Your task to perform on an android device: turn on bluetooth scan Image 0: 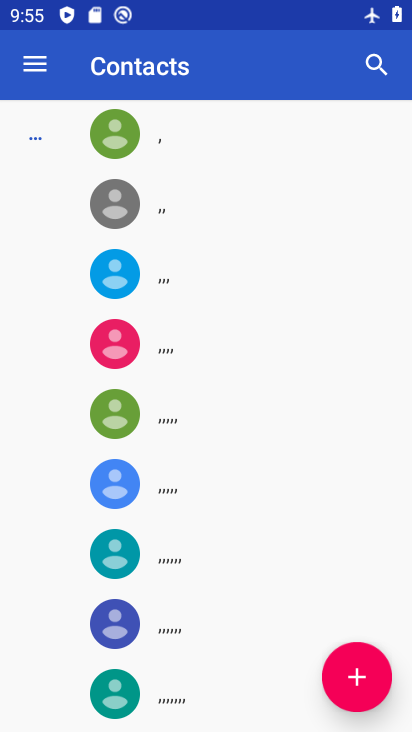
Step 0: press back button
Your task to perform on an android device: turn on bluetooth scan Image 1: 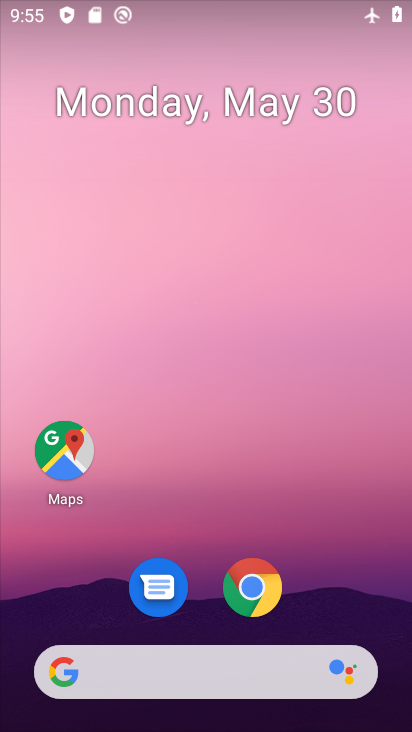
Step 1: drag from (318, 598) to (252, 98)
Your task to perform on an android device: turn on bluetooth scan Image 2: 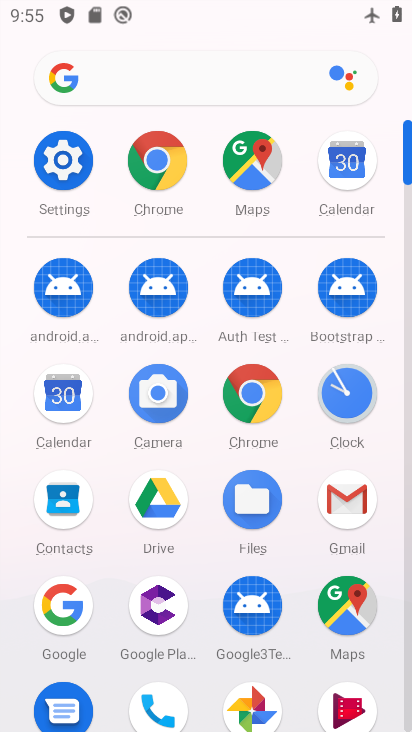
Step 2: drag from (10, 458) to (28, 199)
Your task to perform on an android device: turn on bluetooth scan Image 3: 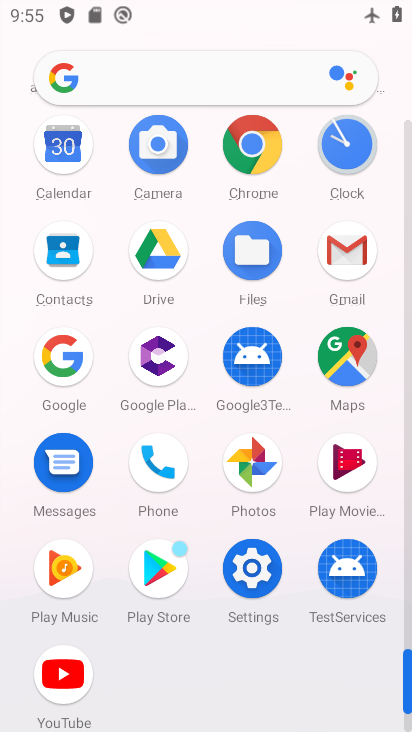
Step 3: click (251, 565)
Your task to perform on an android device: turn on bluetooth scan Image 4: 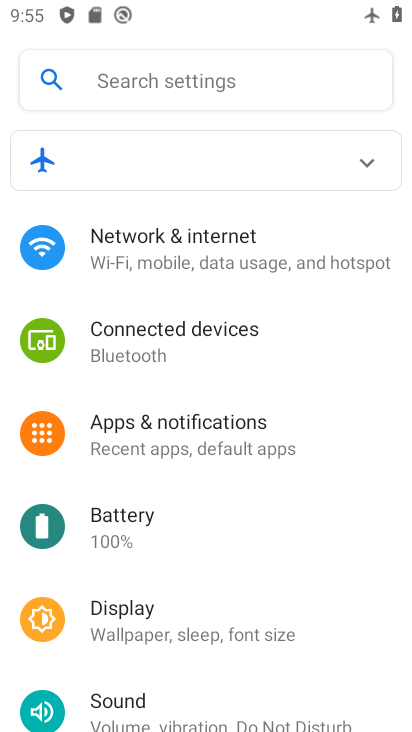
Step 4: drag from (321, 594) to (332, 146)
Your task to perform on an android device: turn on bluetooth scan Image 5: 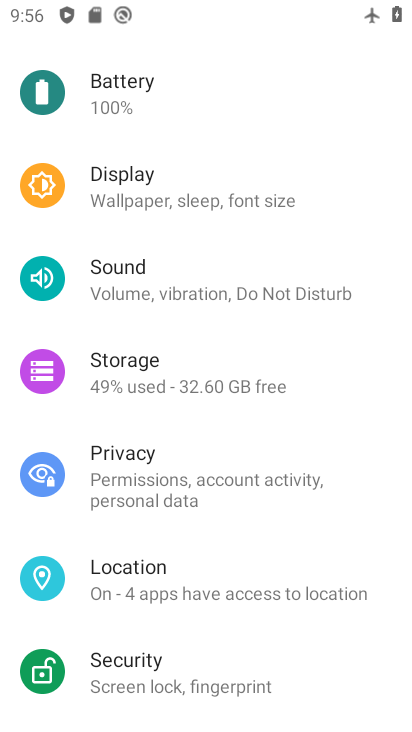
Step 5: click (207, 571)
Your task to perform on an android device: turn on bluetooth scan Image 6: 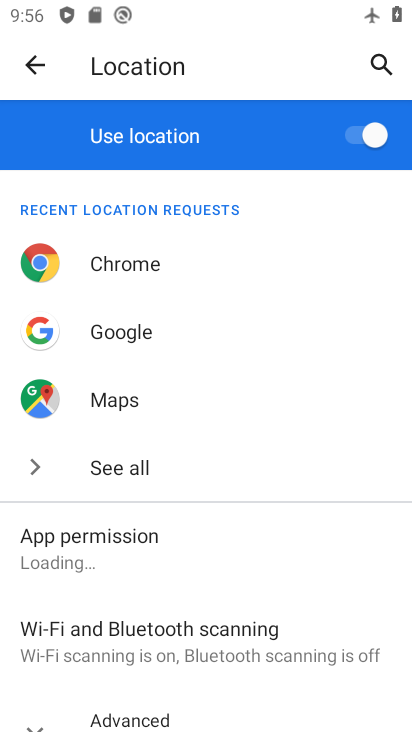
Step 6: click (216, 646)
Your task to perform on an android device: turn on bluetooth scan Image 7: 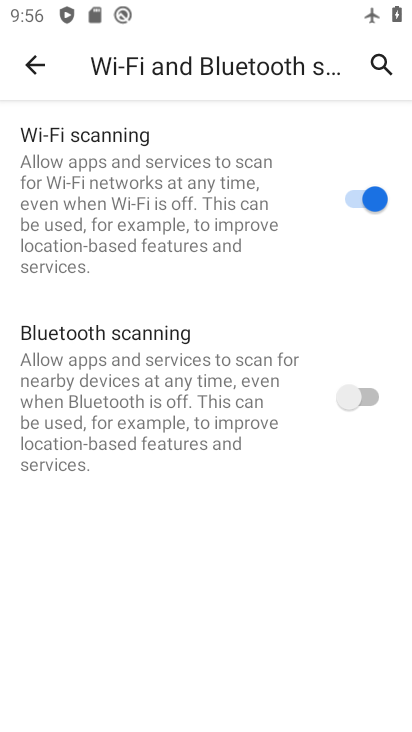
Step 7: click (370, 401)
Your task to perform on an android device: turn on bluetooth scan Image 8: 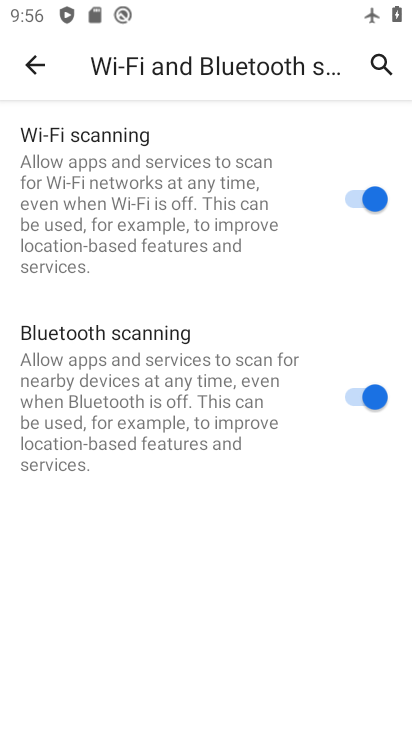
Step 8: task complete